Your task to perform on an android device: Open Chrome and go to the settings page Image 0: 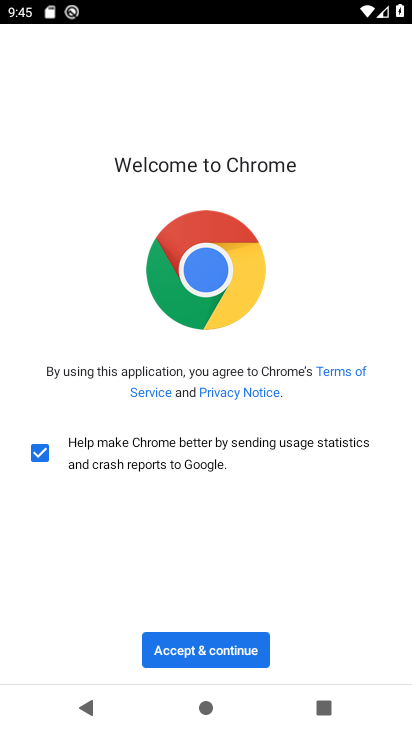
Step 0: click (234, 656)
Your task to perform on an android device: Open Chrome and go to the settings page Image 1: 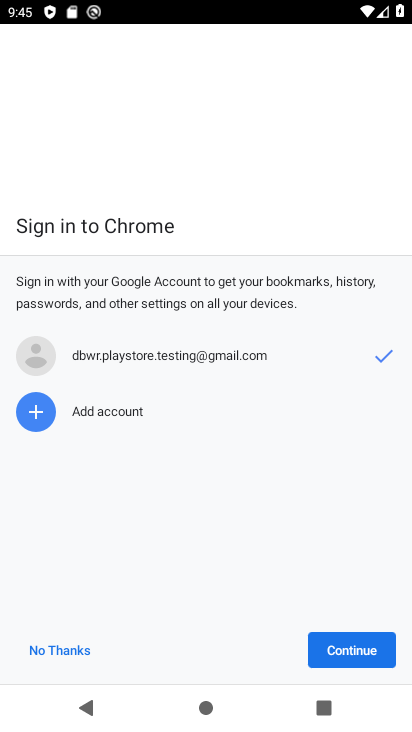
Step 1: click (344, 652)
Your task to perform on an android device: Open Chrome and go to the settings page Image 2: 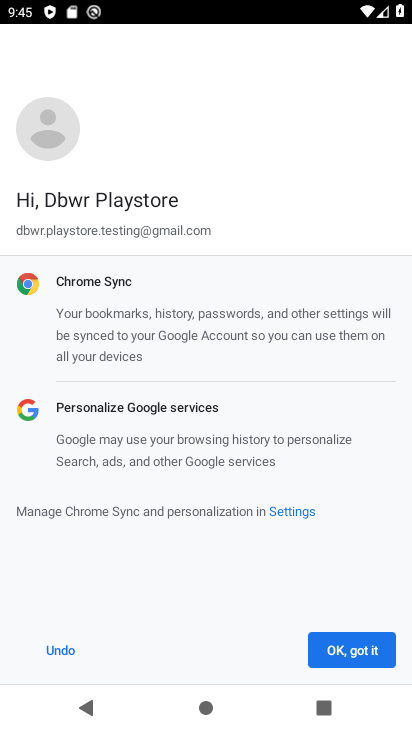
Step 2: click (345, 651)
Your task to perform on an android device: Open Chrome and go to the settings page Image 3: 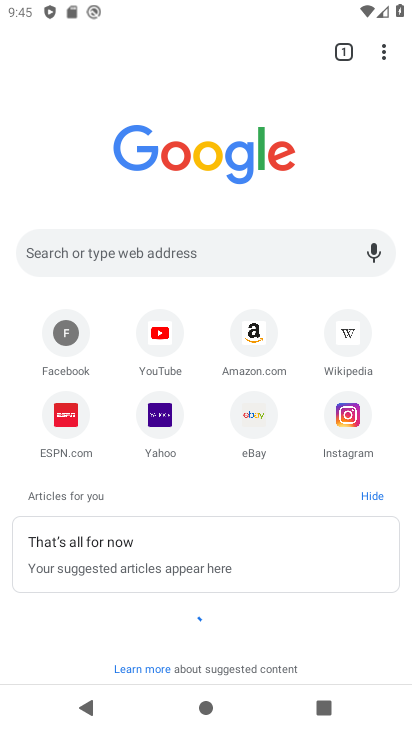
Step 3: task complete